Your task to perform on an android device: all mails in gmail Image 0: 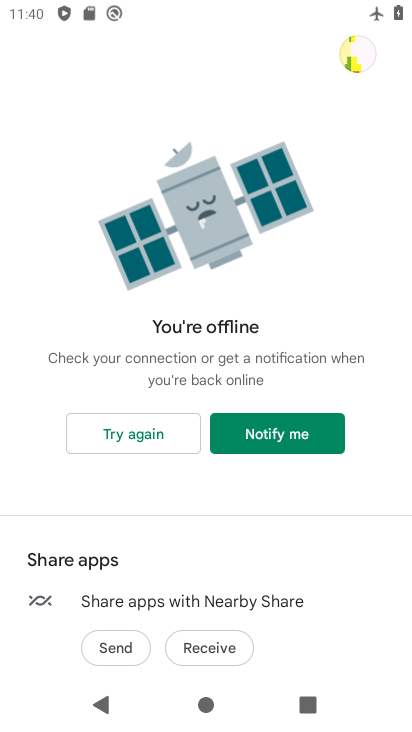
Step 0: press home button
Your task to perform on an android device: all mails in gmail Image 1: 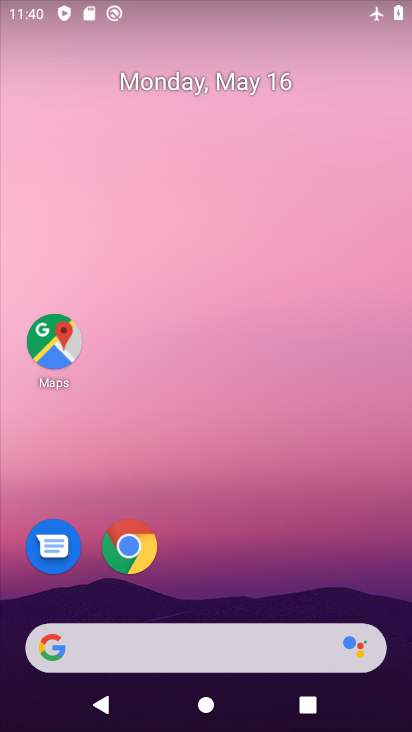
Step 1: drag from (395, 635) to (310, 55)
Your task to perform on an android device: all mails in gmail Image 2: 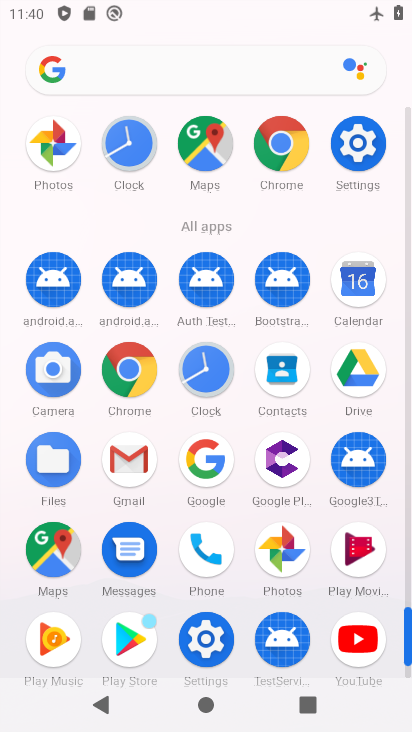
Step 2: click (408, 595)
Your task to perform on an android device: all mails in gmail Image 3: 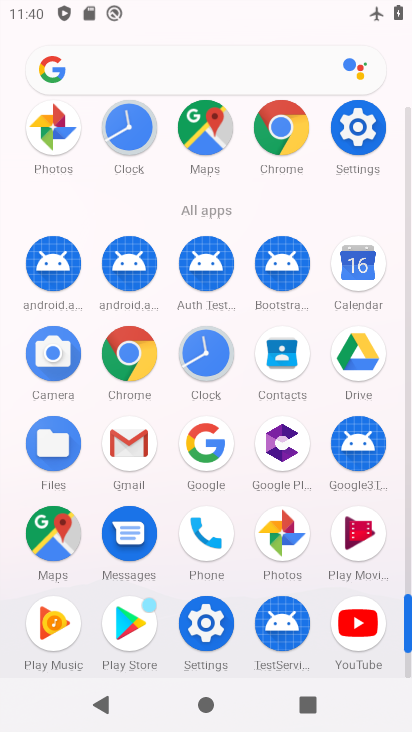
Step 3: click (127, 441)
Your task to perform on an android device: all mails in gmail Image 4: 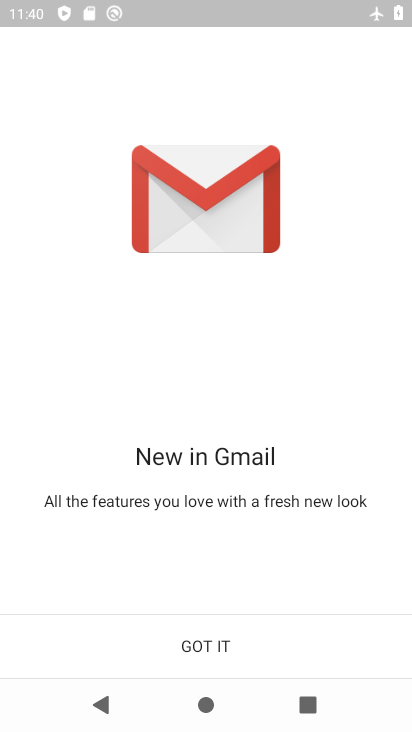
Step 4: click (202, 663)
Your task to perform on an android device: all mails in gmail Image 5: 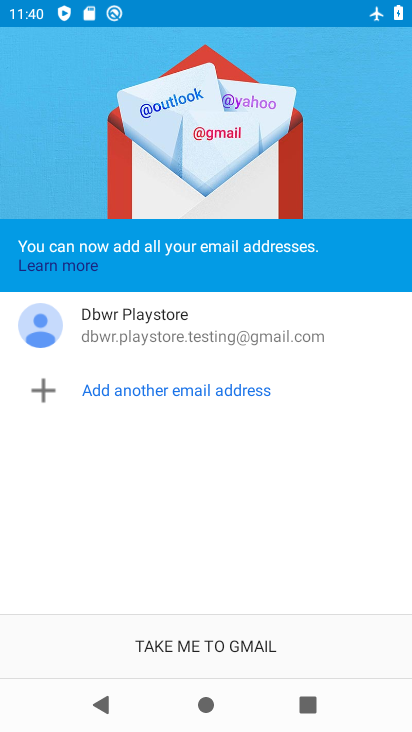
Step 5: click (201, 649)
Your task to perform on an android device: all mails in gmail Image 6: 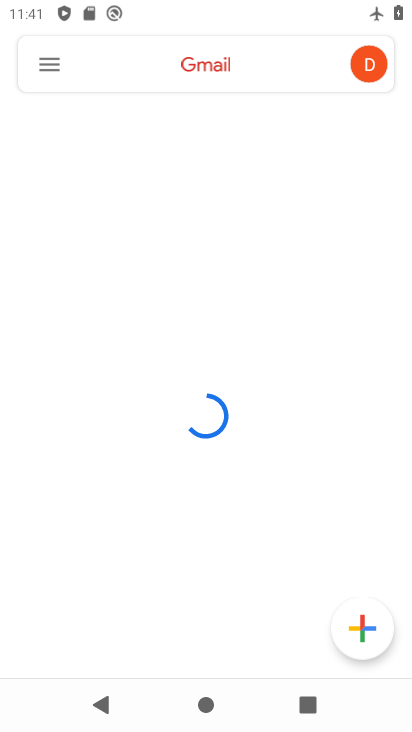
Step 6: click (51, 60)
Your task to perform on an android device: all mails in gmail Image 7: 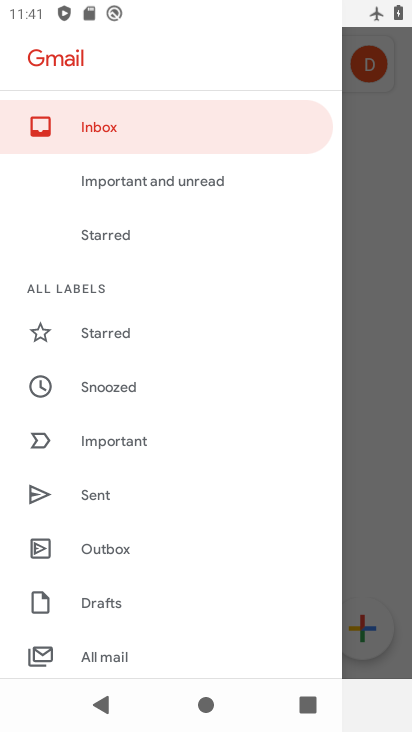
Step 7: drag from (205, 639) to (258, 164)
Your task to perform on an android device: all mails in gmail Image 8: 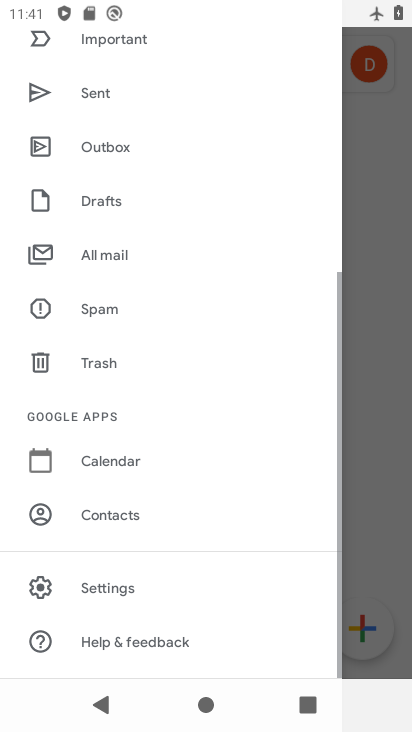
Step 8: click (99, 250)
Your task to perform on an android device: all mails in gmail Image 9: 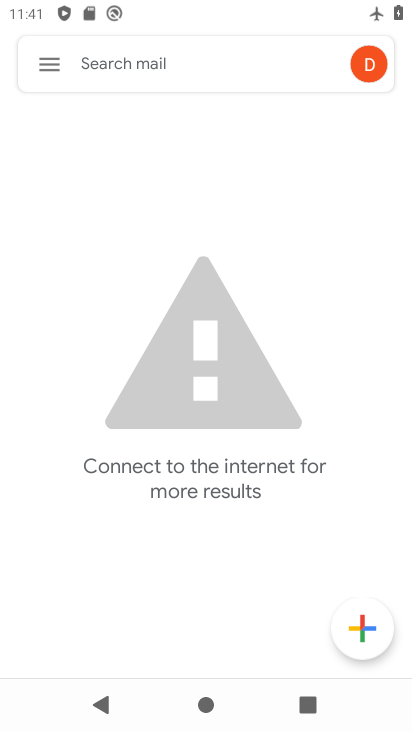
Step 9: task complete